Your task to perform on an android device: Toggle the flashlight Image 0: 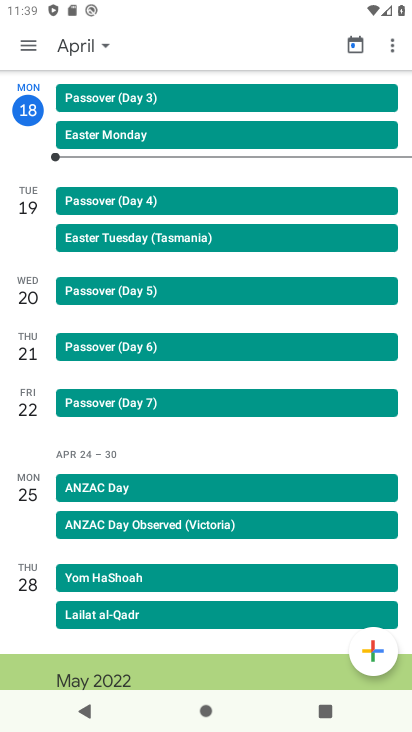
Step 0: task impossible